Your task to perform on an android device: see tabs open on other devices in the chrome app Image 0: 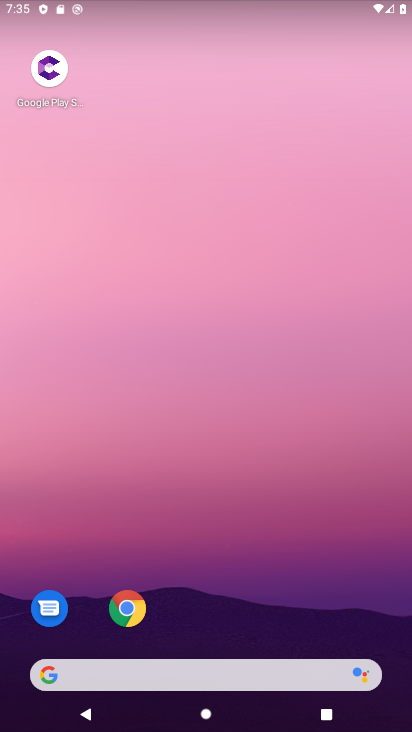
Step 0: click (135, 612)
Your task to perform on an android device: see tabs open on other devices in the chrome app Image 1: 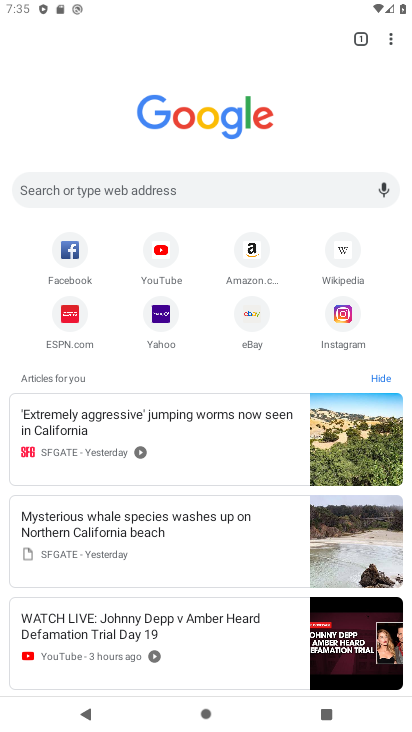
Step 1: click (393, 36)
Your task to perform on an android device: see tabs open on other devices in the chrome app Image 2: 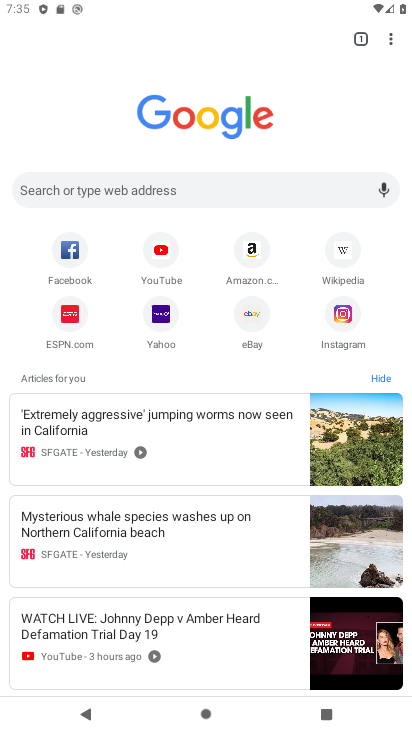
Step 2: click (388, 37)
Your task to perform on an android device: see tabs open on other devices in the chrome app Image 3: 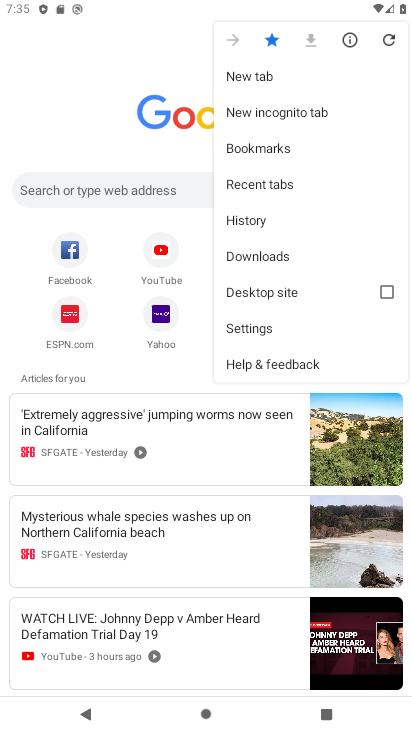
Step 3: click (241, 183)
Your task to perform on an android device: see tabs open on other devices in the chrome app Image 4: 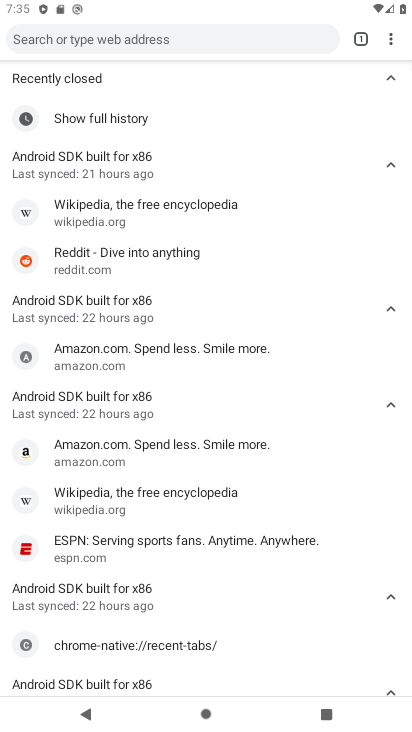
Step 4: task complete